Your task to perform on an android device: turn on improve location accuracy Image 0: 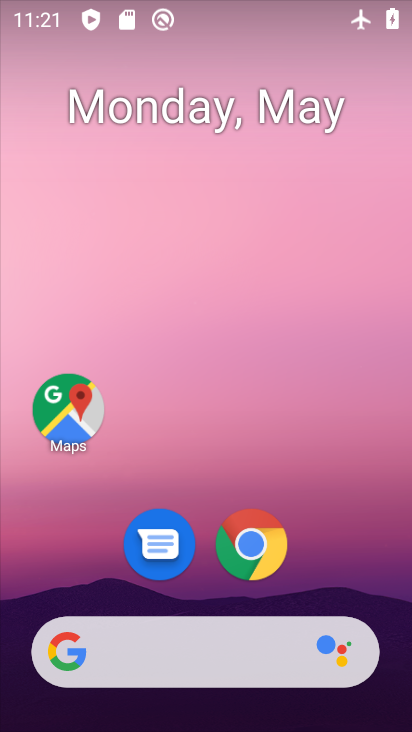
Step 0: drag from (388, 555) to (330, 123)
Your task to perform on an android device: turn on improve location accuracy Image 1: 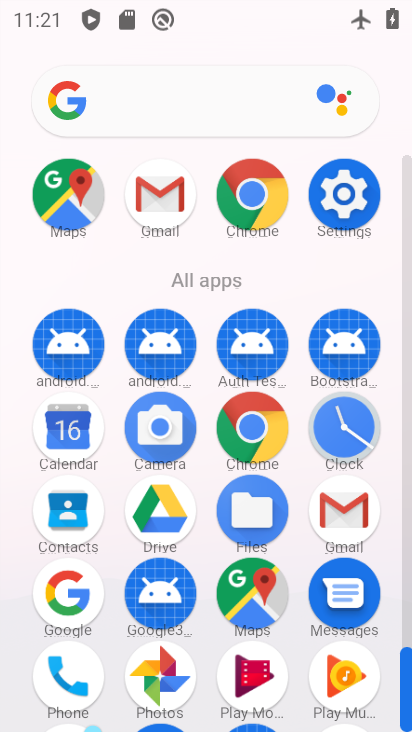
Step 1: click (321, 190)
Your task to perform on an android device: turn on improve location accuracy Image 2: 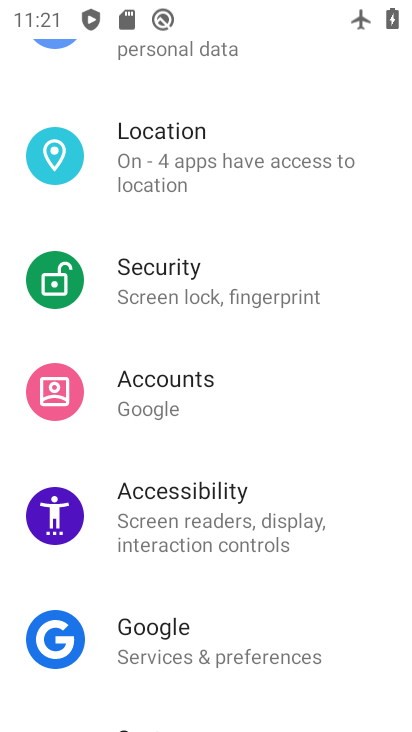
Step 2: drag from (318, 225) to (331, 536)
Your task to perform on an android device: turn on improve location accuracy Image 3: 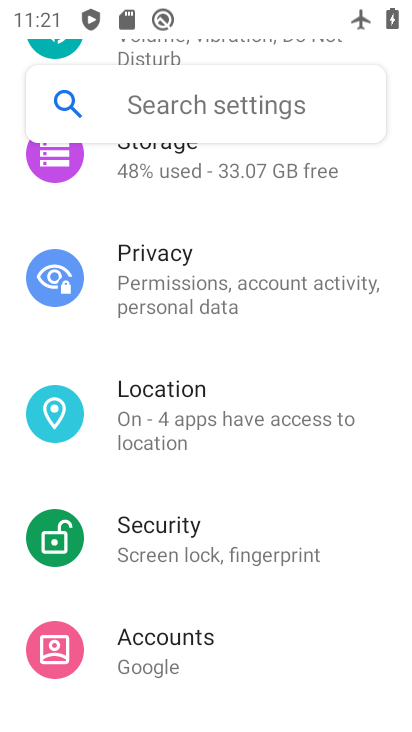
Step 3: drag from (298, 202) to (309, 451)
Your task to perform on an android device: turn on improve location accuracy Image 4: 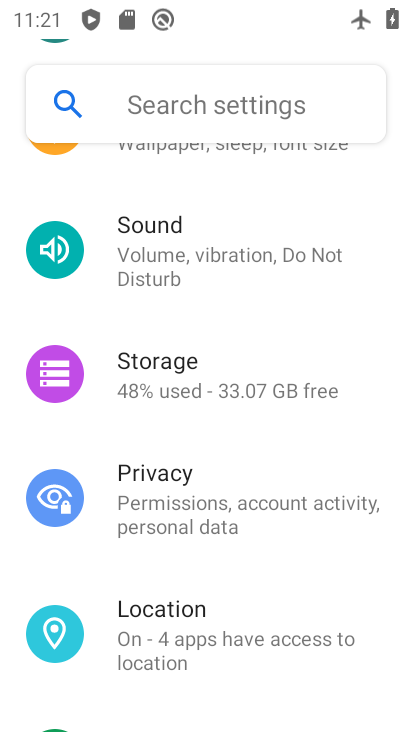
Step 4: click (272, 614)
Your task to perform on an android device: turn on improve location accuracy Image 5: 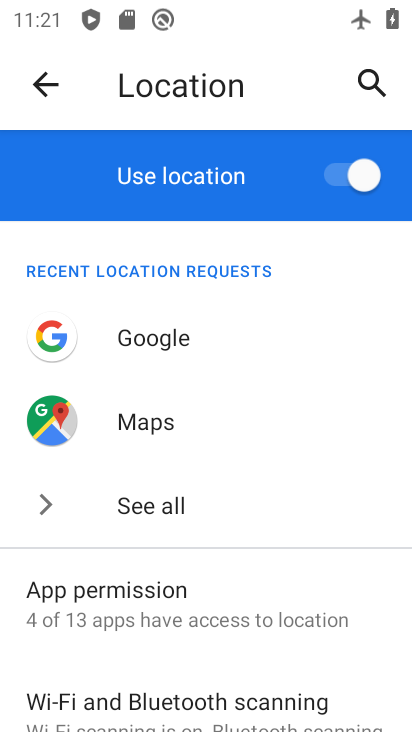
Step 5: drag from (332, 674) to (305, 329)
Your task to perform on an android device: turn on improve location accuracy Image 6: 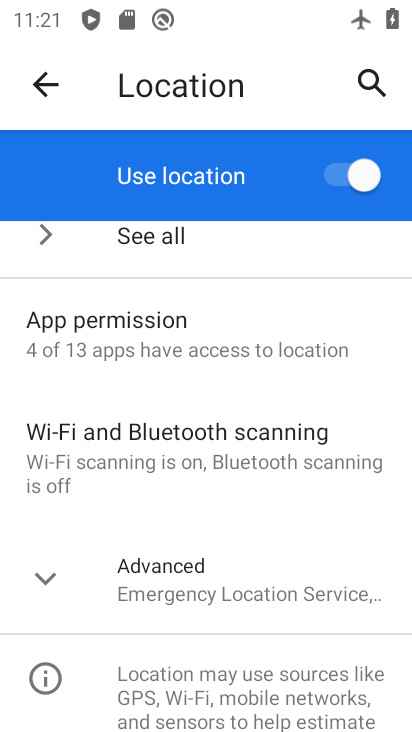
Step 6: click (261, 559)
Your task to perform on an android device: turn on improve location accuracy Image 7: 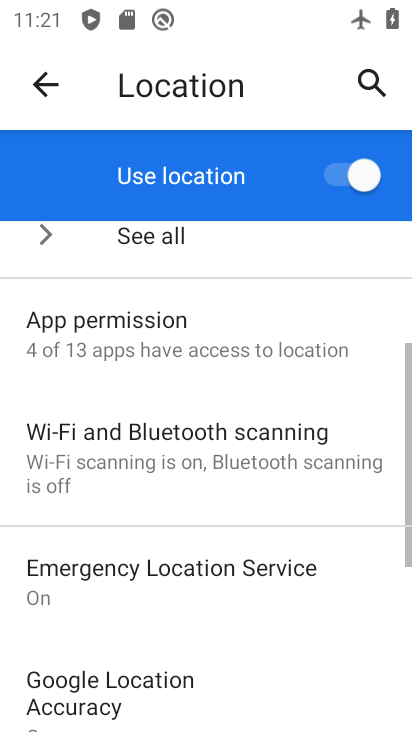
Step 7: drag from (355, 715) to (363, 349)
Your task to perform on an android device: turn on improve location accuracy Image 8: 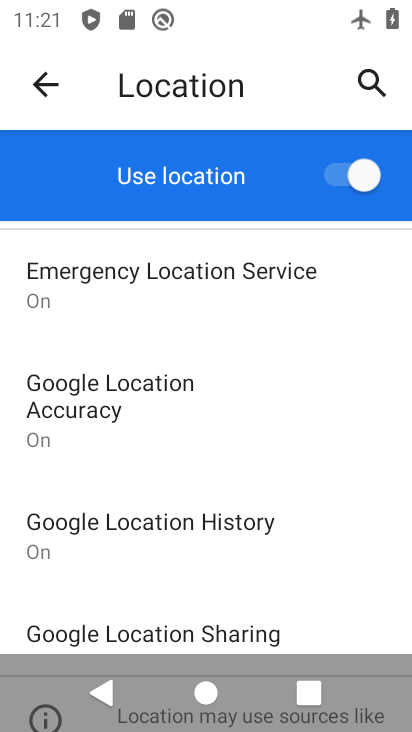
Step 8: click (151, 411)
Your task to perform on an android device: turn on improve location accuracy Image 9: 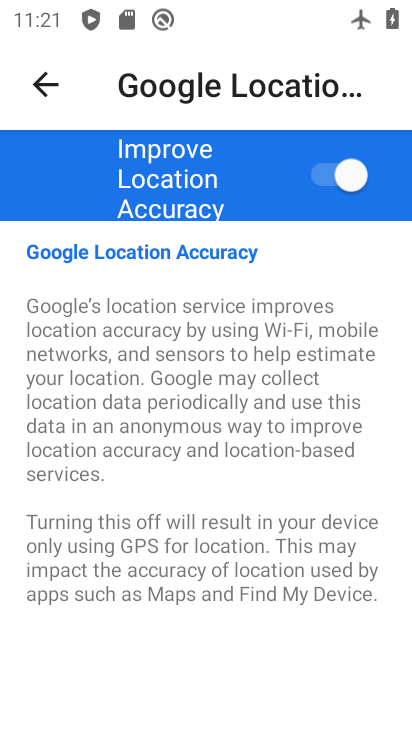
Step 9: task complete